Your task to perform on an android device: turn off smart reply in the gmail app Image 0: 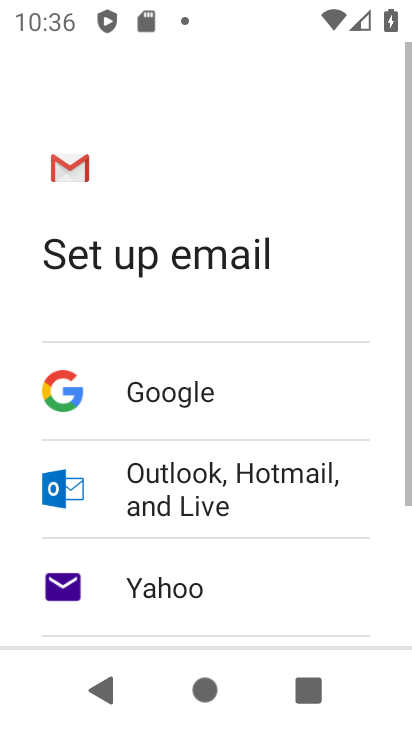
Step 0: press home button
Your task to perform on an android device: turn off smart reply in the gmail app Image 1: 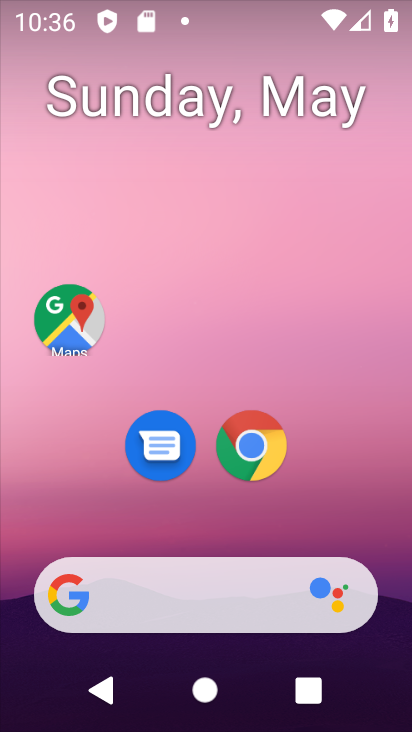
Step 1: drag from (158, 527) to (154, 145)
Your task to perform on an android device: turn off smart reply in the gmail app Image 2: 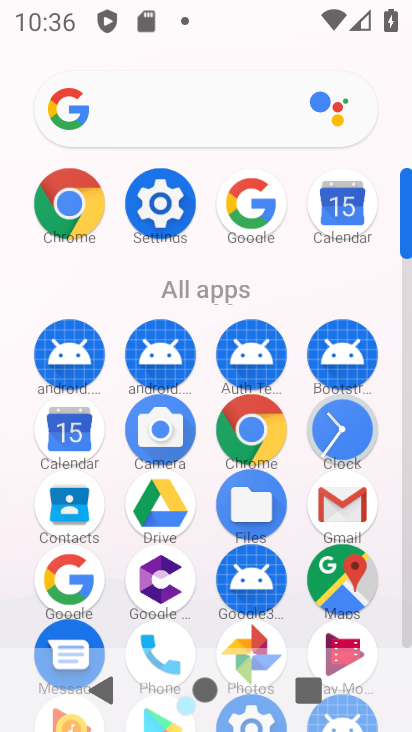
Step 2: click (340, 502)
Your task to perform on an android device: turn off smart reply in the gmail app Image 3: 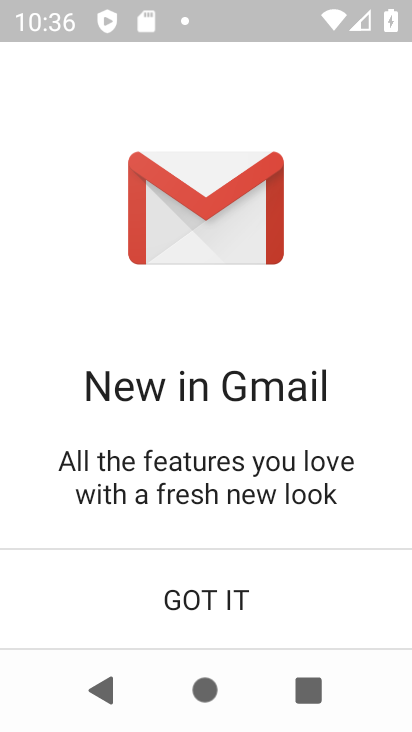
Step 3: click (222, 587)
Your task to perform on an android device: turn off smart reply in the gmail app Image 4: 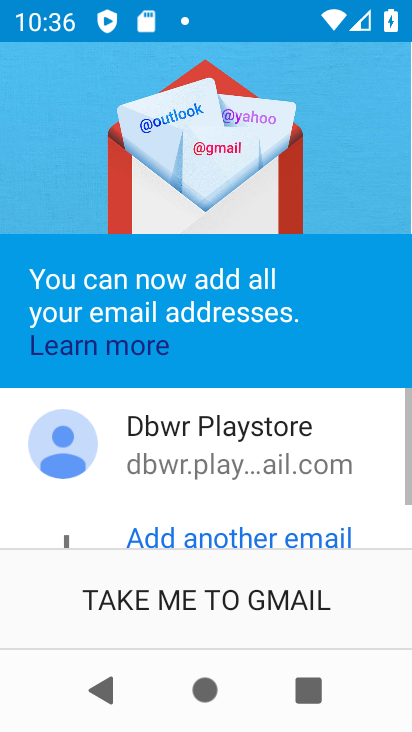
Step 4: click (246, 595)
Your task to perform on an android device: turn off smart reply in the gmail app Image 5: 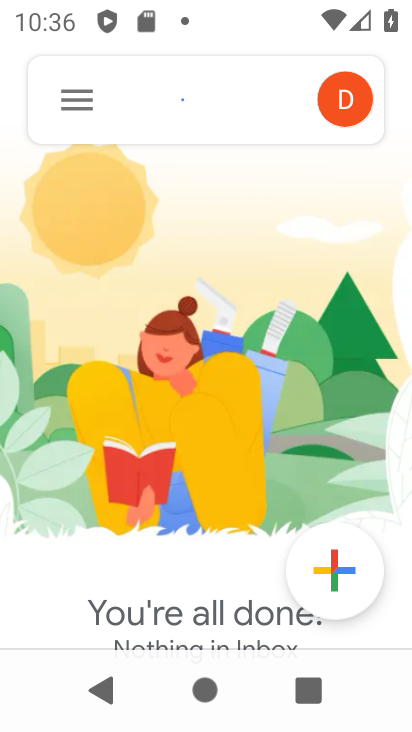
Step 5: click (84, 107)
Your task to perform on an android device: turn off smart reply in the gmail app Image 6: 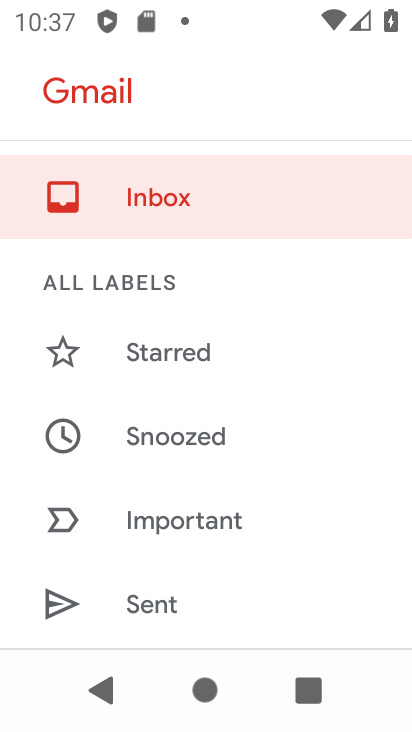
Step 6: drag from (171, 549) to (239, 148)
Your task to perform on an android device: turn off smart reply in the gmail app Image 7: 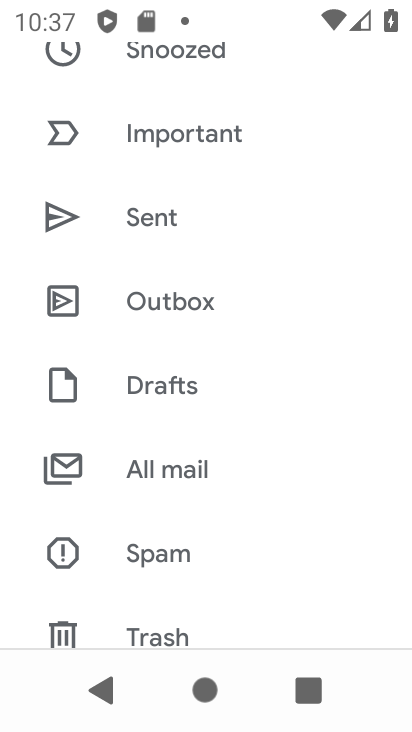
Step 7: drag from (218, 545) to (276, 188)
Your task to perform on an android device: turn off smart reply in the gmail app Image 8: 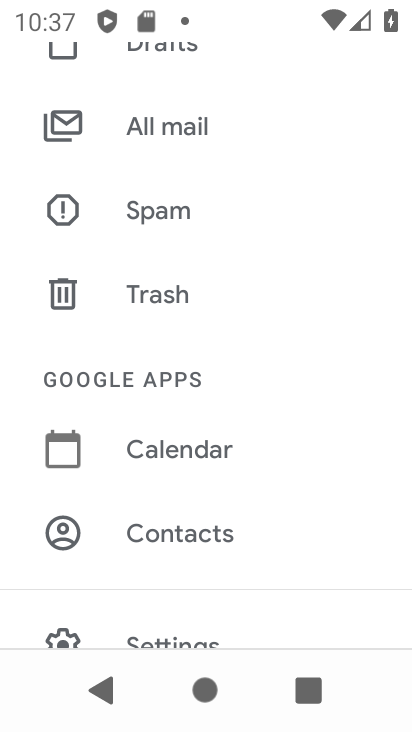
Step 8: drag from (202, 579) to (268, 179)
Your task to perform on an android device: turn off smart reply in the gmail app Image 9: 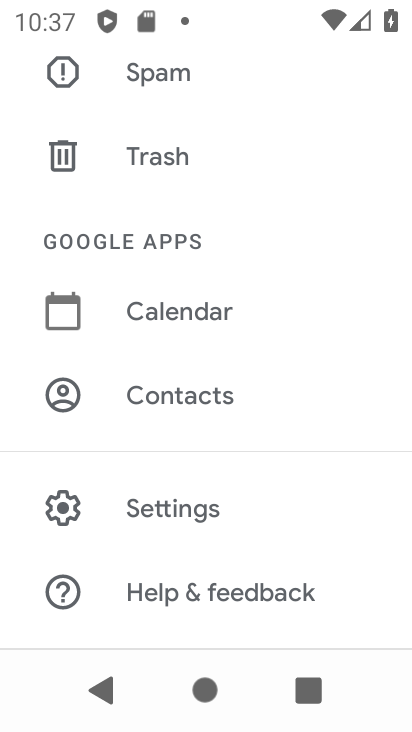
Step 9: click (182, 515)
Your task to perform on an android device: turn off smart reply in the gmail app Image 10: 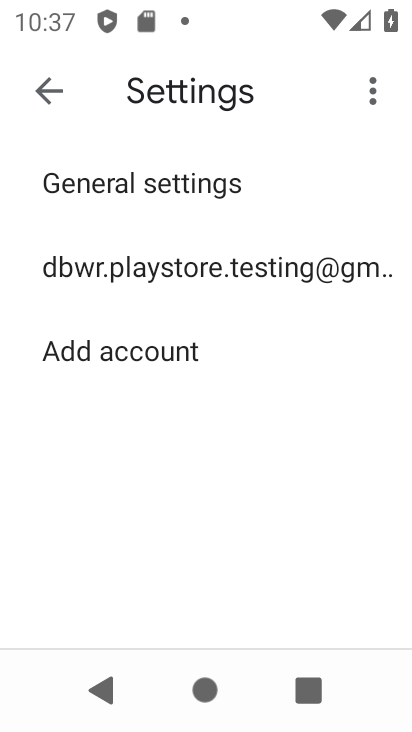
Step 10: click (251, 261)
Your task to perform on an android device: turn off smart reply in the gmail app Image 11: 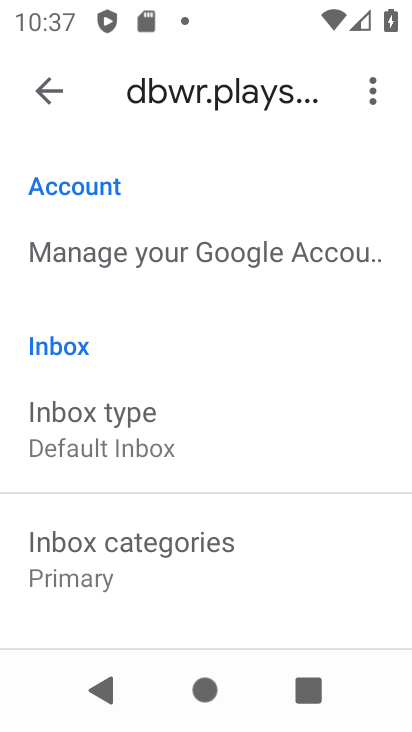
Step 11: task complete